Your task to perform on an android device: Open Google Chrome Image 0: 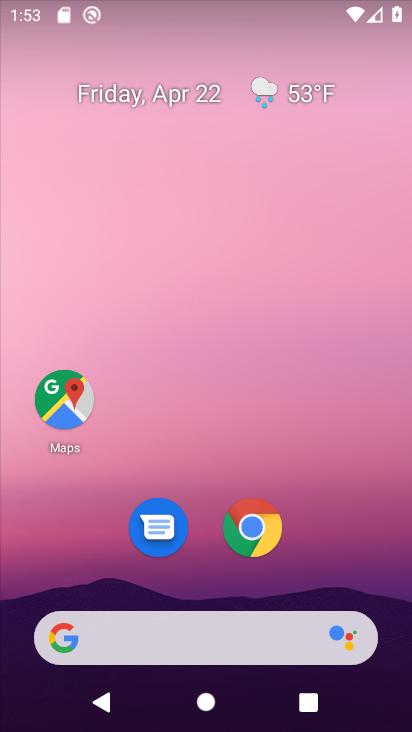
Step 0: click (264, 526)
Your task to perform on an android device: Open Google Chrome Image 1: 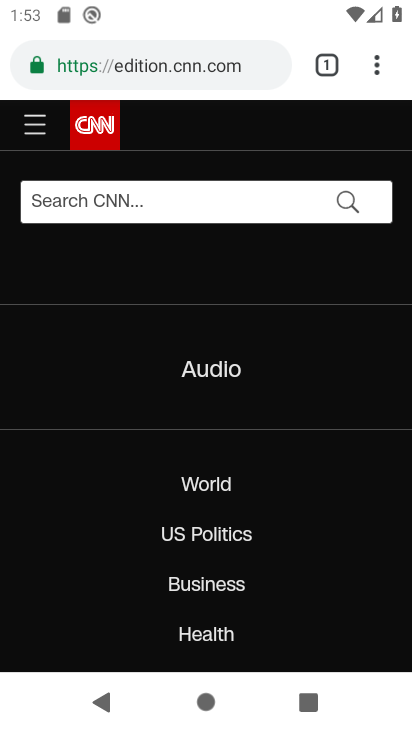
Step 1: task complete